Your task to perform on an android device: Open Google Maps and go to "Timeline" Image 0: 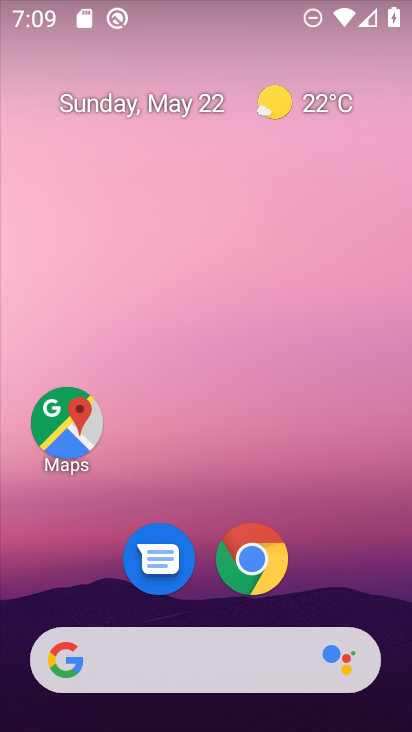
Step 0: drag from (248, 678) to (187, 131)
Your task to perform on an android device: Open Google Maps and go to "Timeline" Image 1: 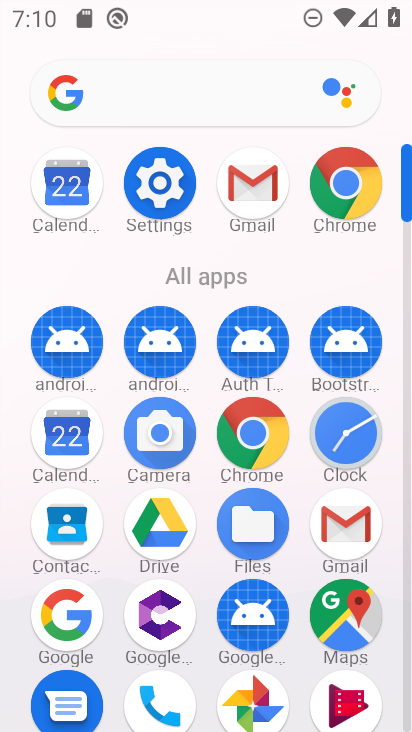
Step 1: click (333, 628)
Your task to perform on an android device: Open Google Maps and go to "Timeline" Image 2: 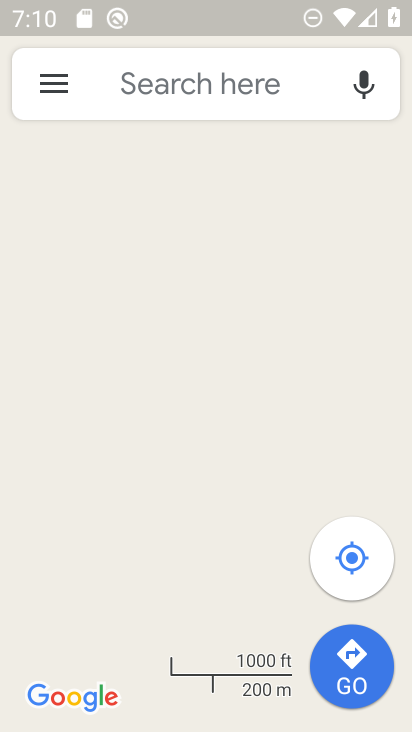
Step 2: click (48, 103)
Your task to perform on an android device: Open Google Maps and go to "Timeline" Image 3: 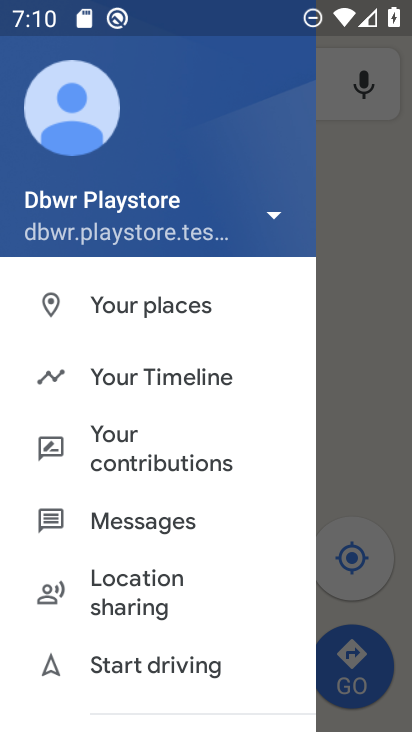
Step 3: click (181, 372)
Your task to perform on an android device: Open Google Maps and go to "Timeline" Image 4: 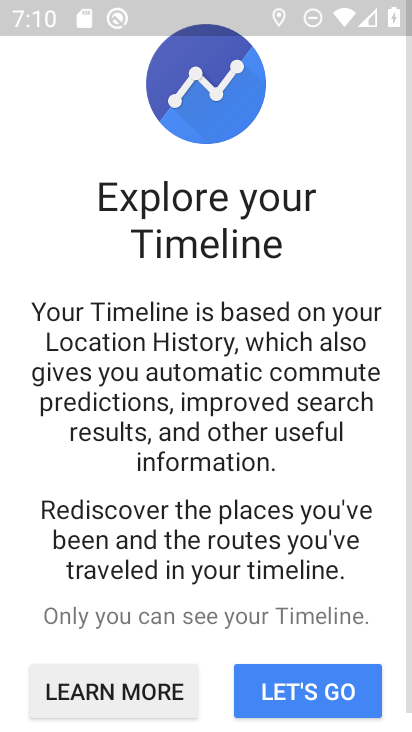
Step 4: click (308, 694)
Your task to perform on an android device: Open Google Maps and go to "Timeline" Image 5: 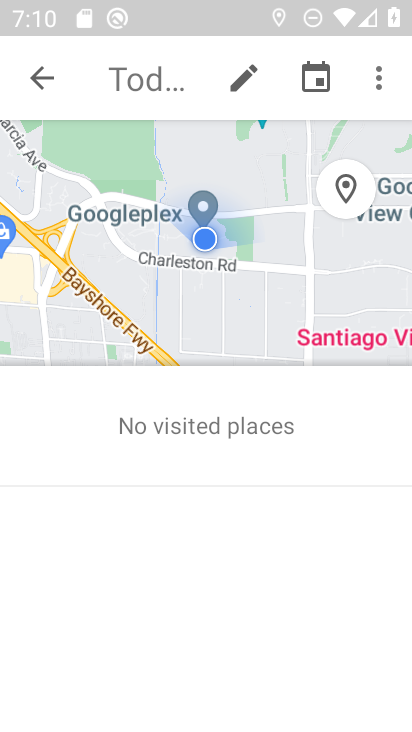
Step 5: task complete